Your task to perform on an android device: Open Wikipedia Image 0: 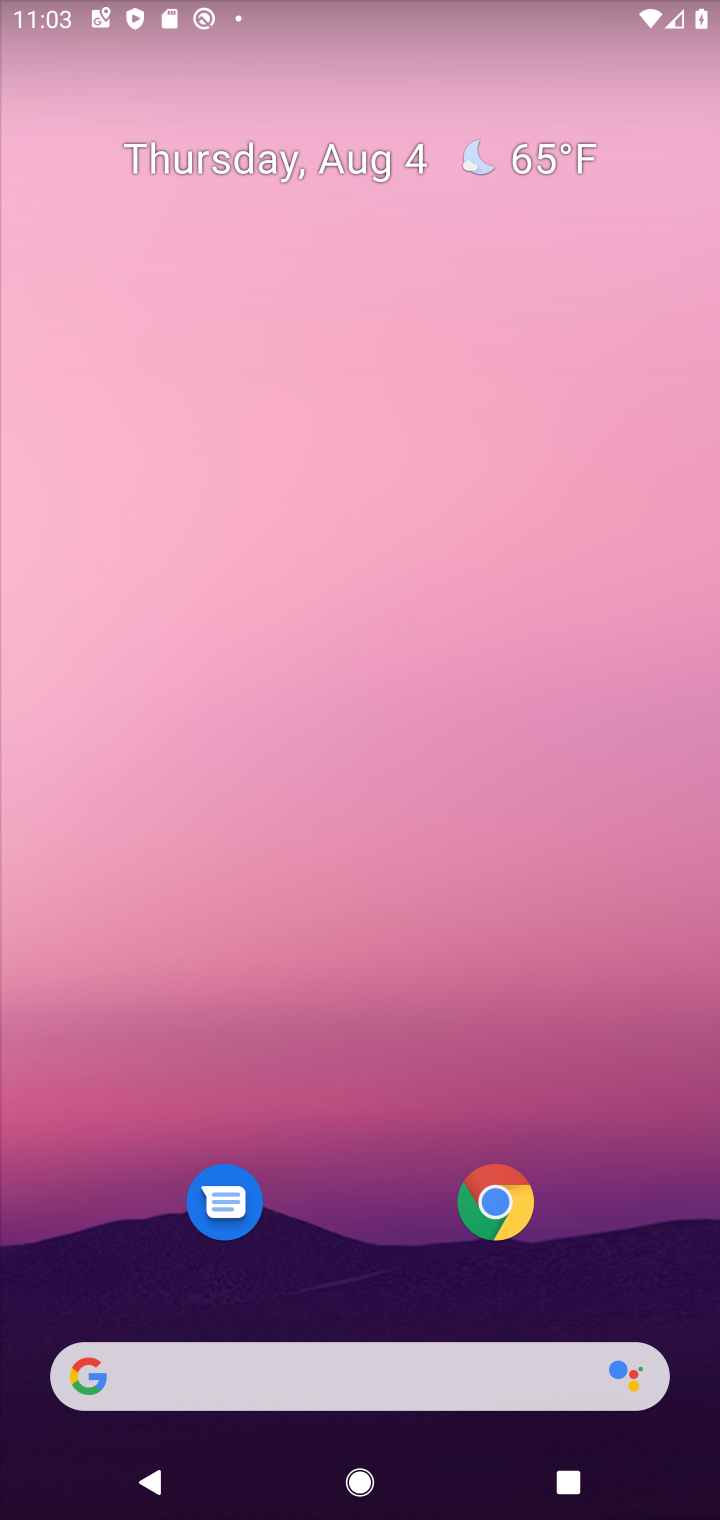
Step 0: click (476, 1195)
Your task to perform on an android device: Open Wikipedia Image 1: 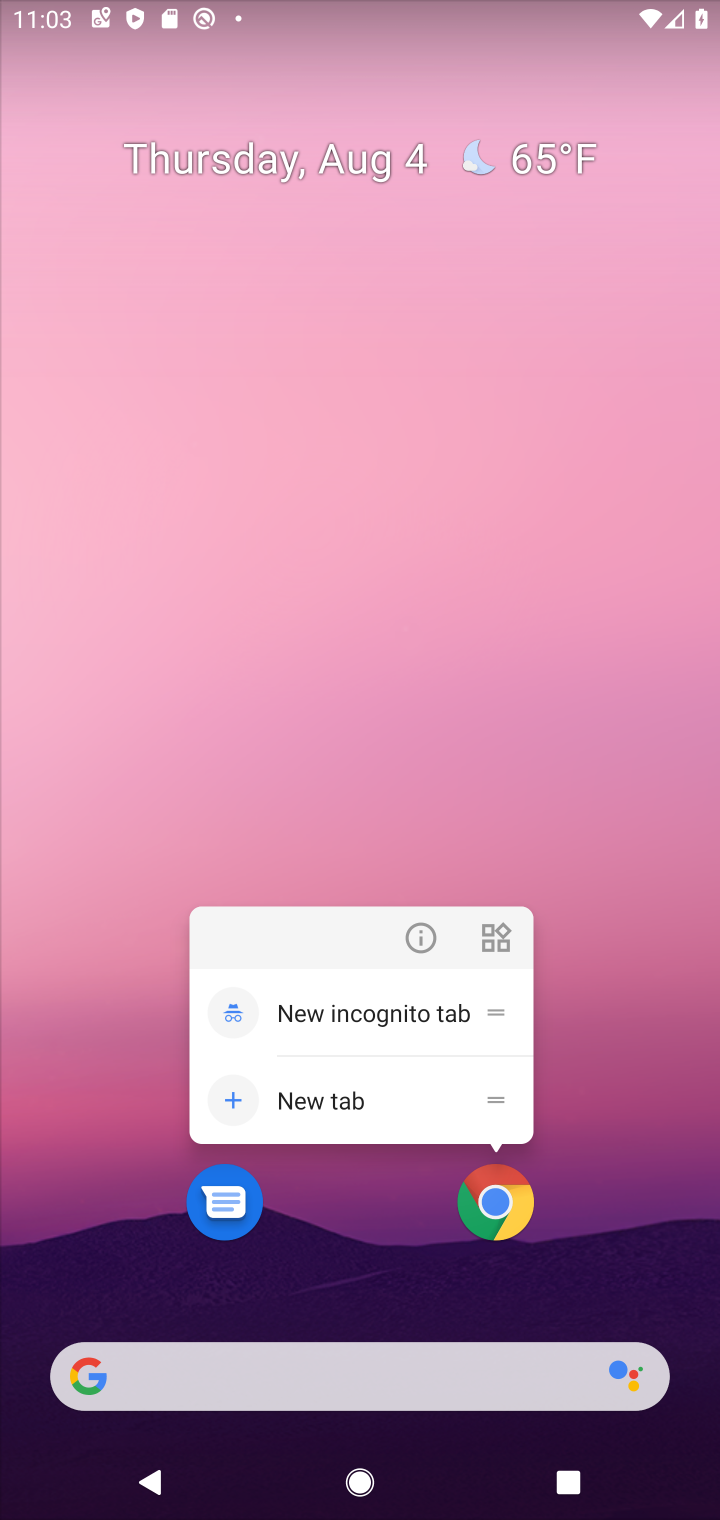
Step 1: click (494, 1200)
Your task to perform on an android device: Open Wikipedia Image 2: 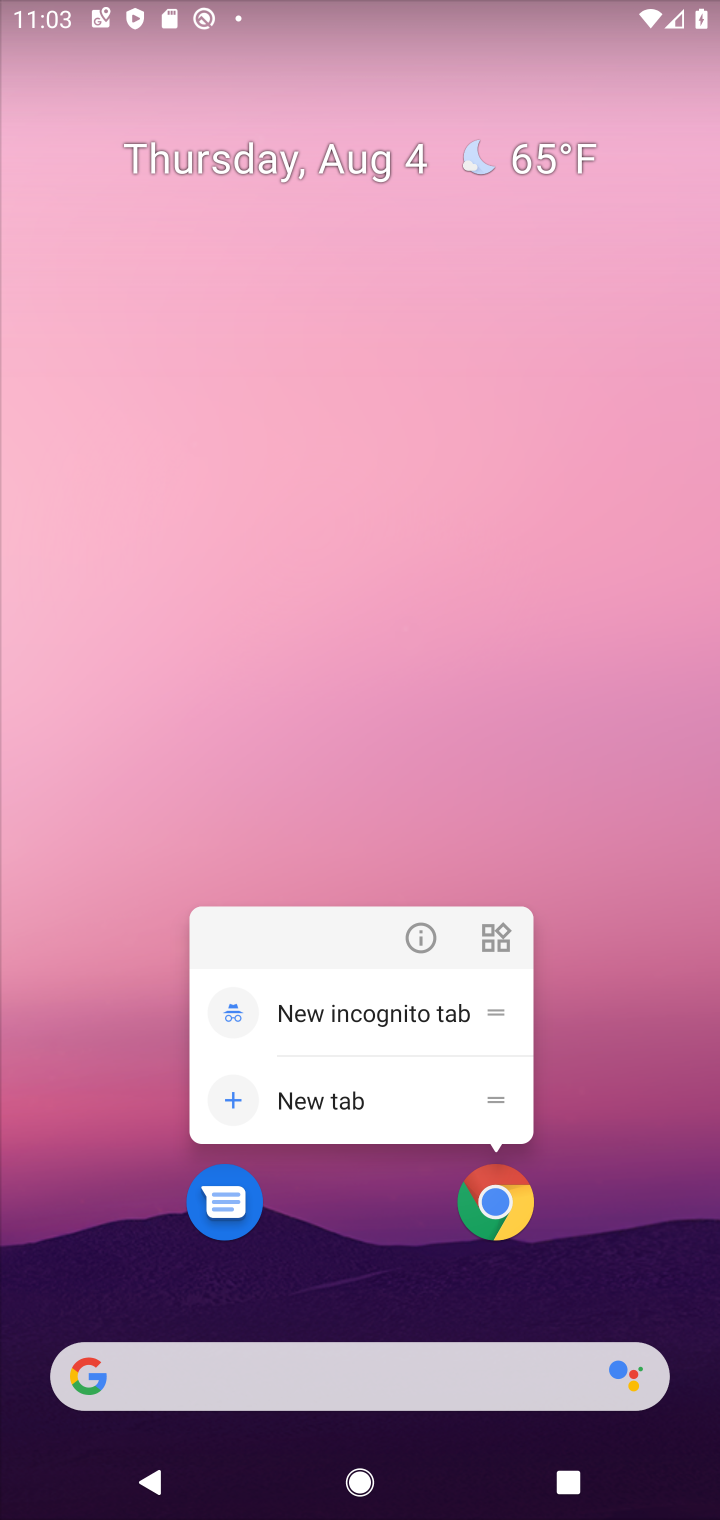
Step 2: click (475, 1200)
Your task to perform on an android device: Open Wikipedia Image 3: 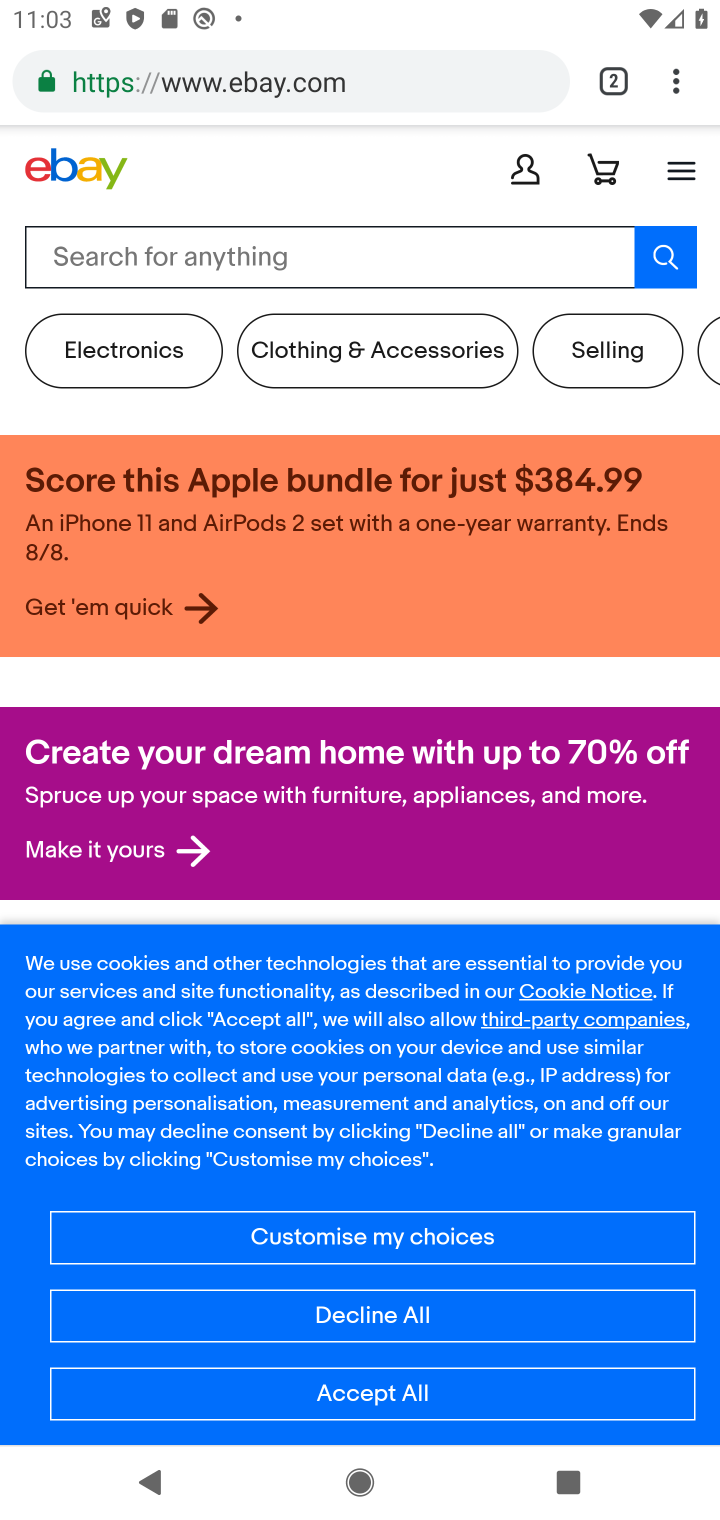
Step 3: click (614, 73)
Your task to perform on an android device: Open Wikipedia Image 4: 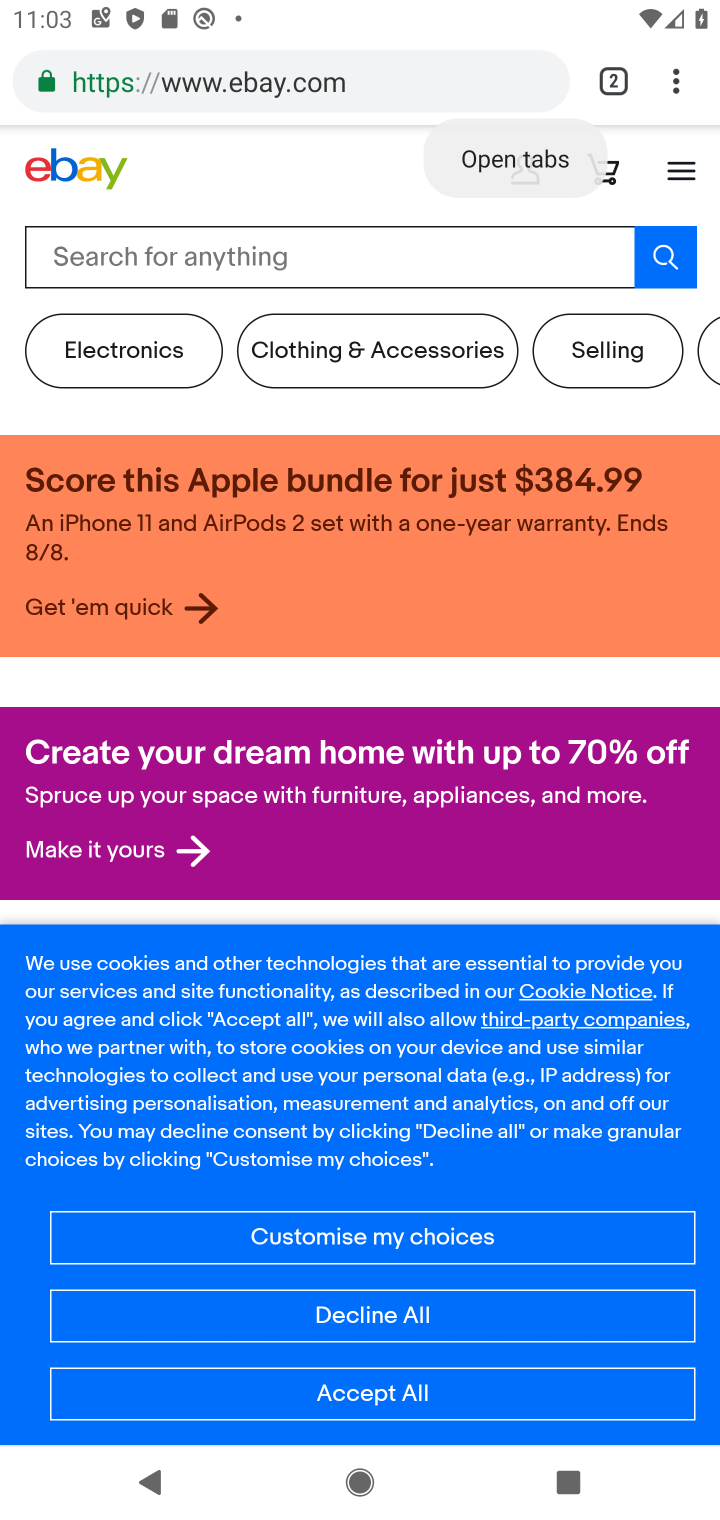
Step 4: click (617, 98)
Your task to perform on an android device: Open Wikipedia Image 5: 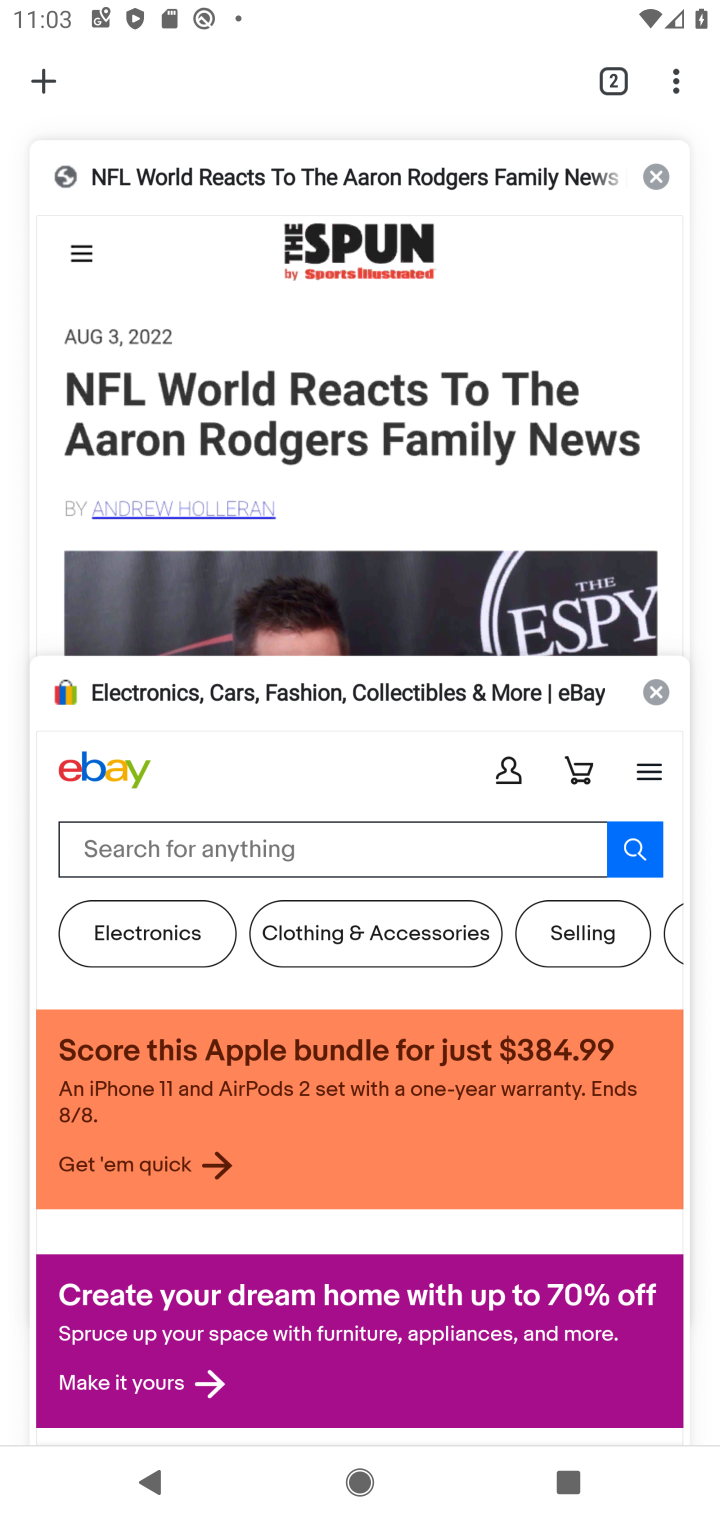
Step 5: click (46, 79)
Your task to perform on an android device: Open Wikipedia Image 6: 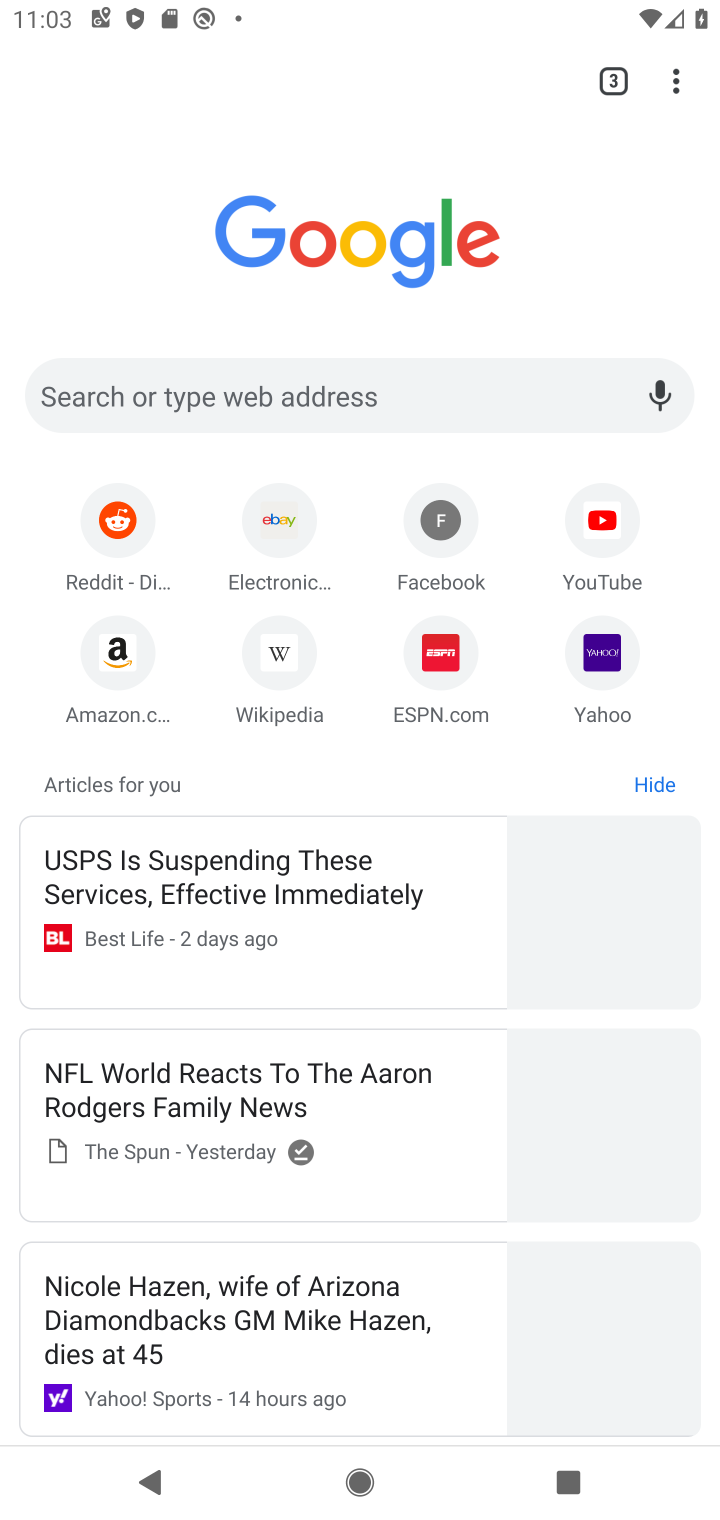
Step 6: click (286, 644)
Your task to perform on an android device: Open Wikipedia Image 7: 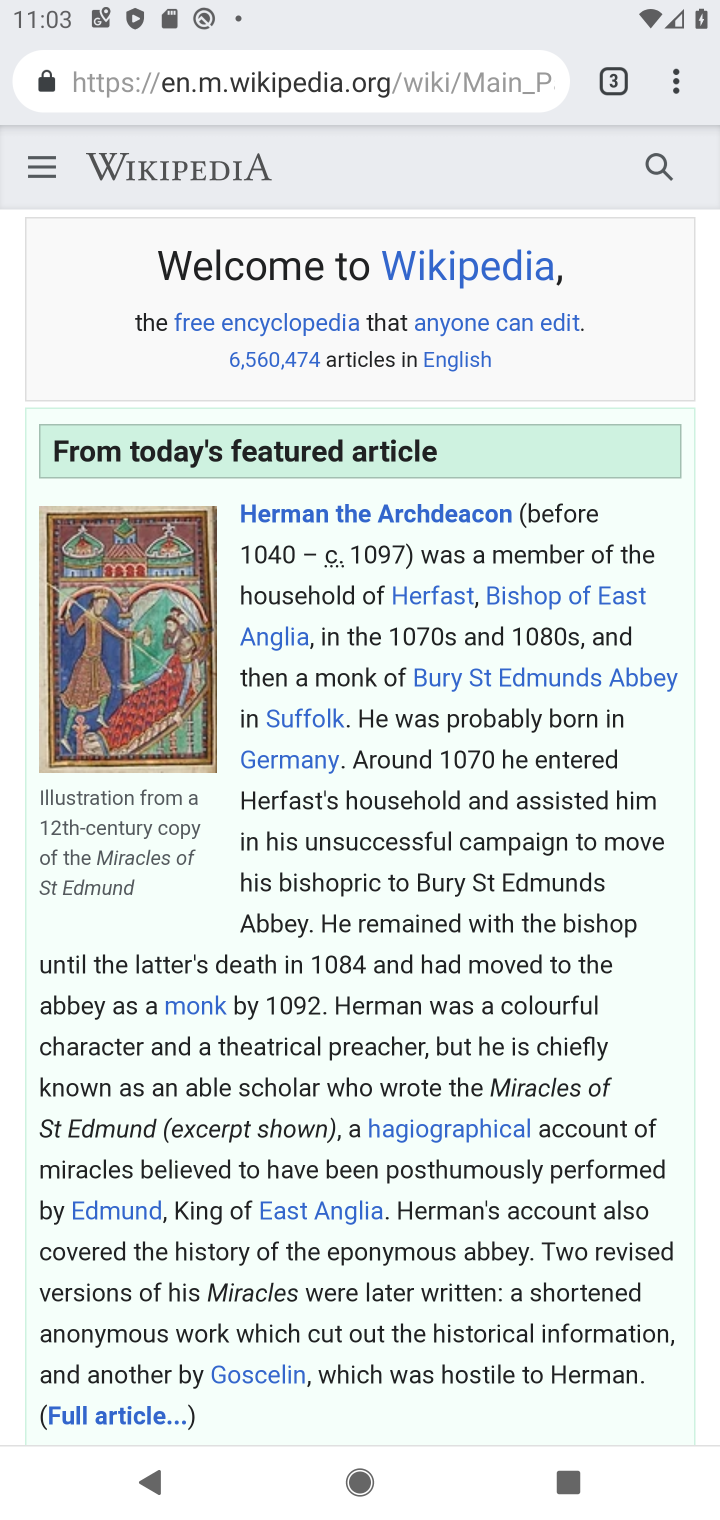
Step 7: task complete